Your task to perform on an android device: toggle notifications settings in the gmail app Image 0: 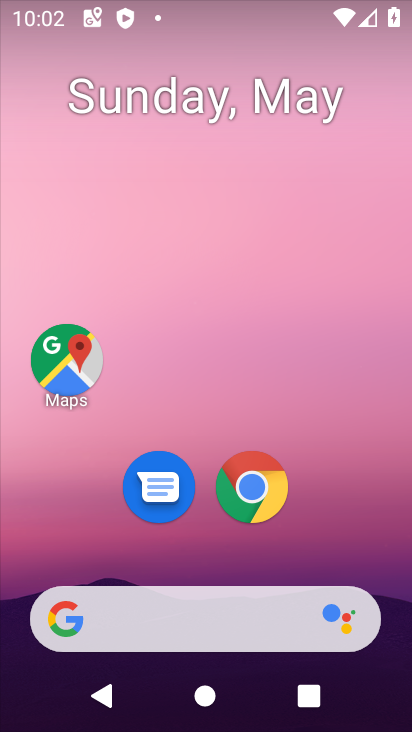
Step 0: drag from (343, 540) to (345, 143)
Your task to perform on an android device: toggle notifications settings in the gmail app Image 1: 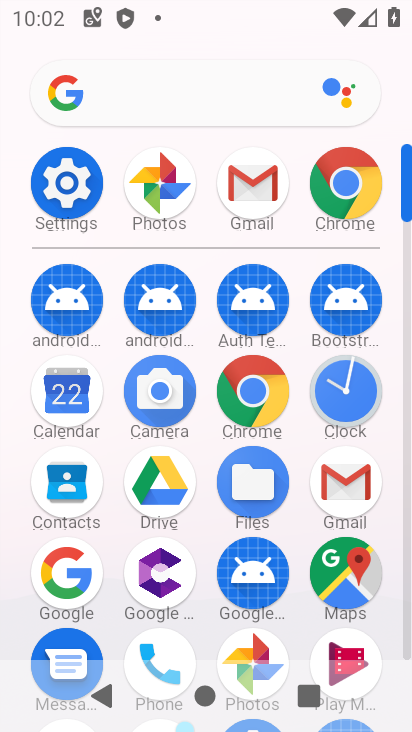
Step 1: click (352, 474)
Your task to perform on an android device: toggle notifications settings in the gmail app Image 2: 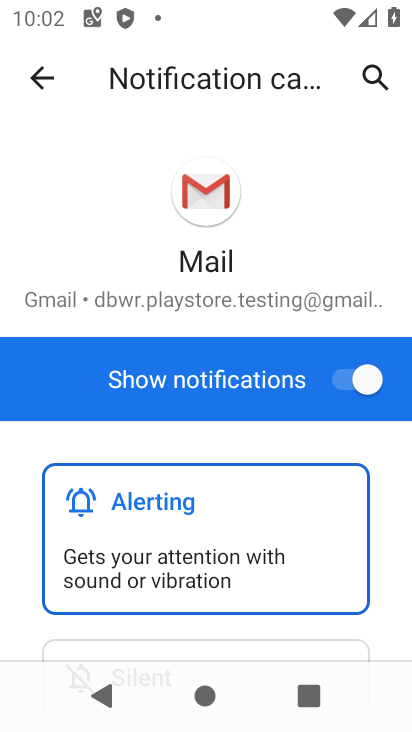
Step 2: click (348, 380)
Your task to perform on an android device: toggle notifications settings in the gmail app Image 3: 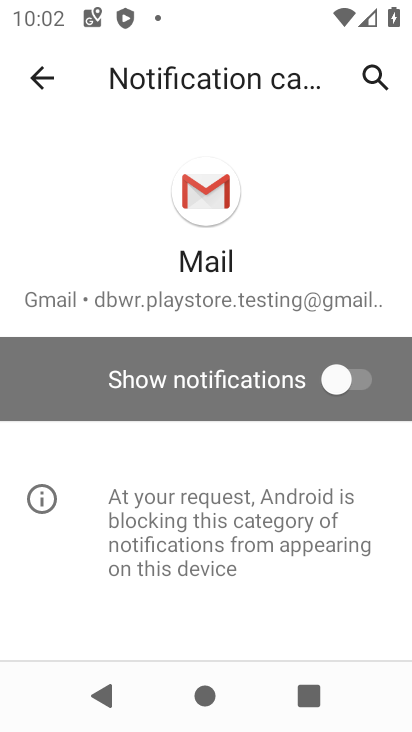
Step 3: task complete